Your task to perform on an android device: Set an alarm for 6pm Image 0: 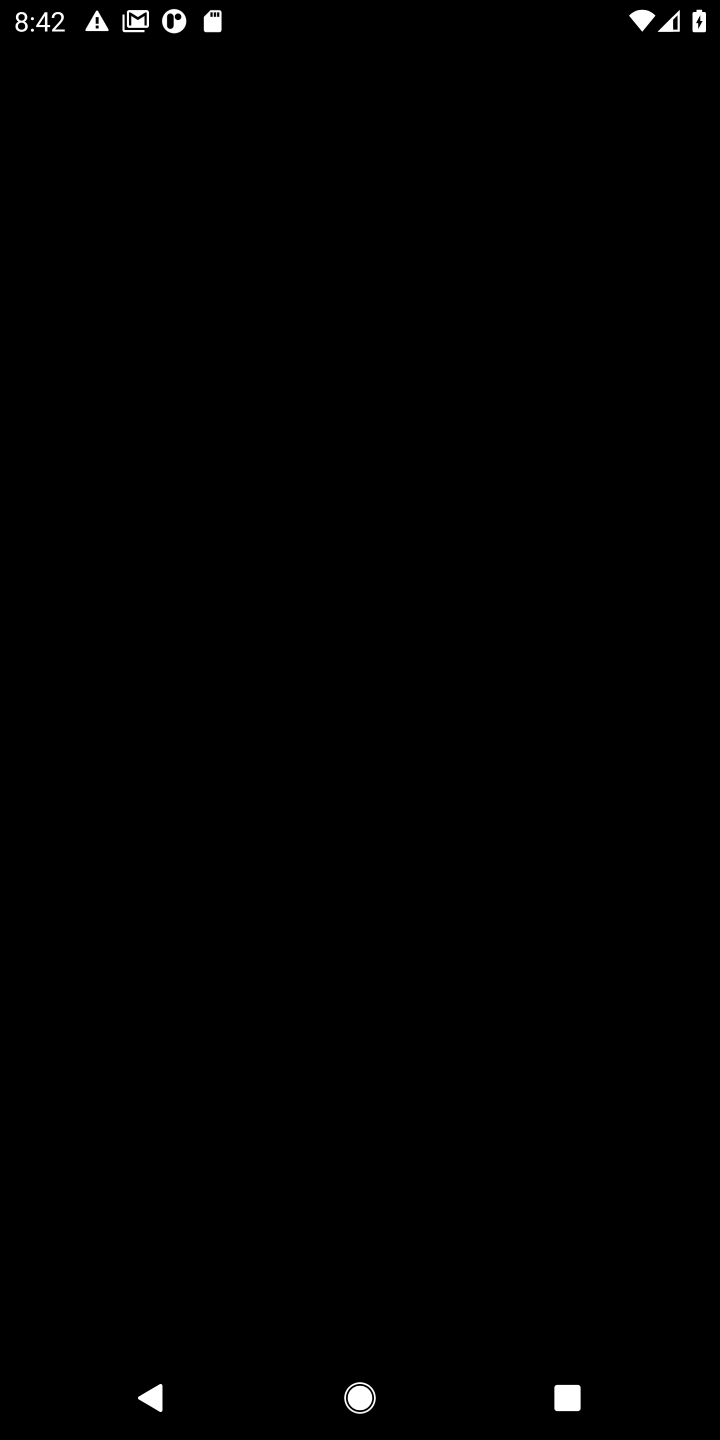
Step 0: press home button
Your task to perform on an android device: Set an alarm for 6pm Image 1: 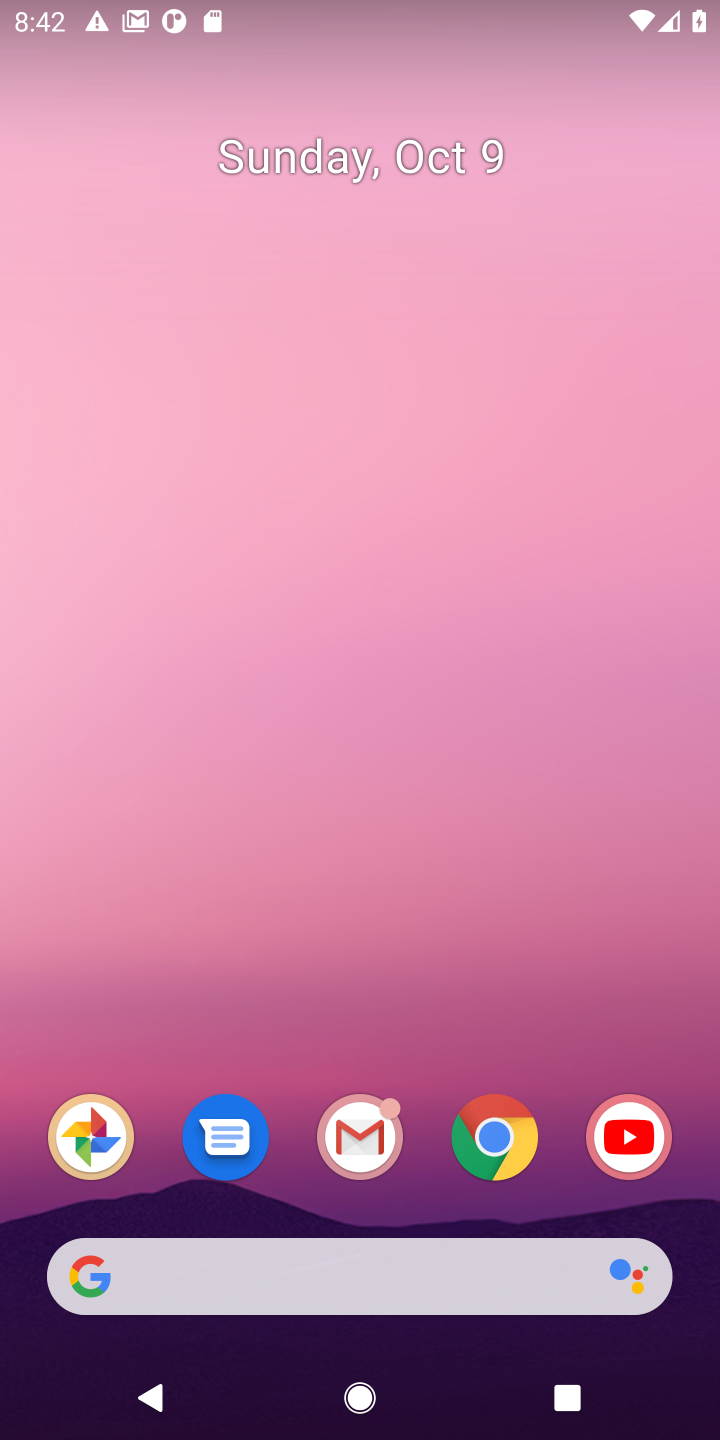
Step 1: click (489, 1145)
Your task to perform on an android device: Set an alarm for 6pm Image 2: 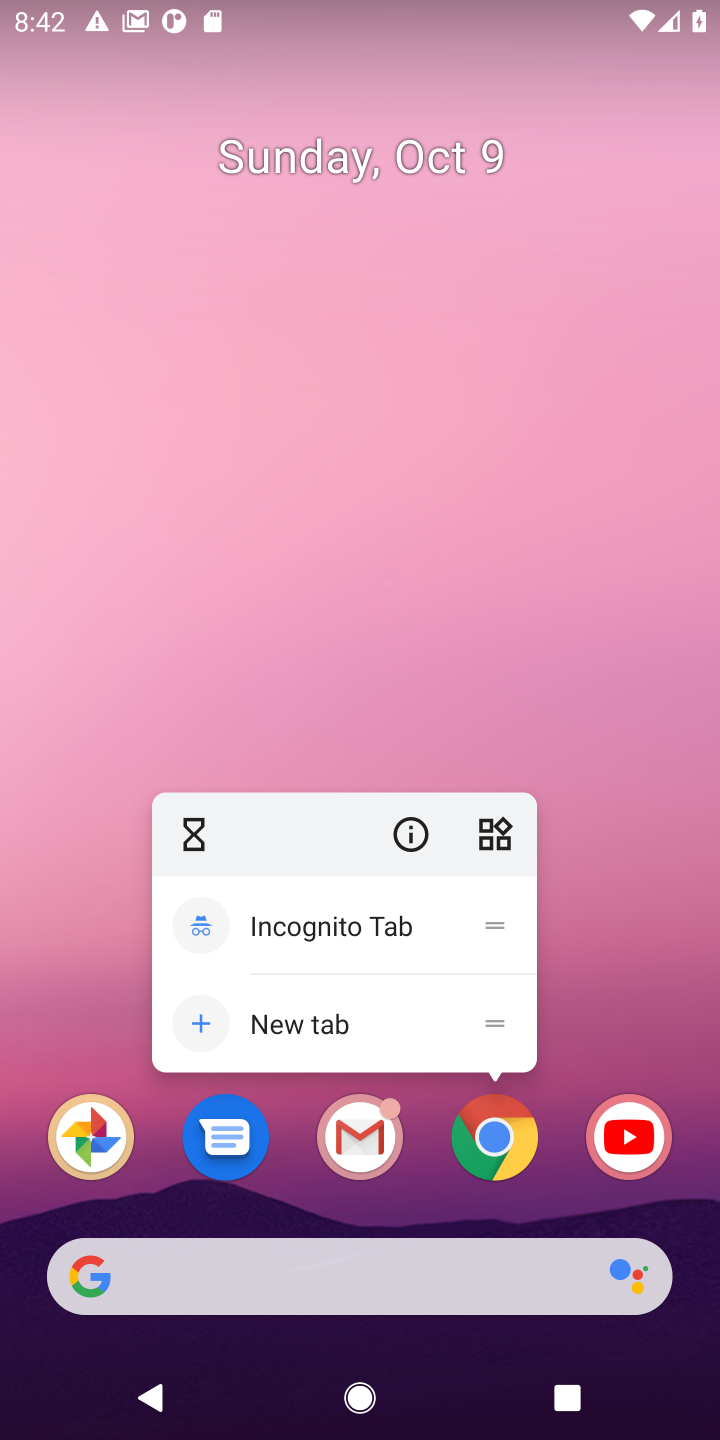
Step 2: click (480, 1145)
Your task to perform on an android device: Set an alarm for 6pm Image 3: 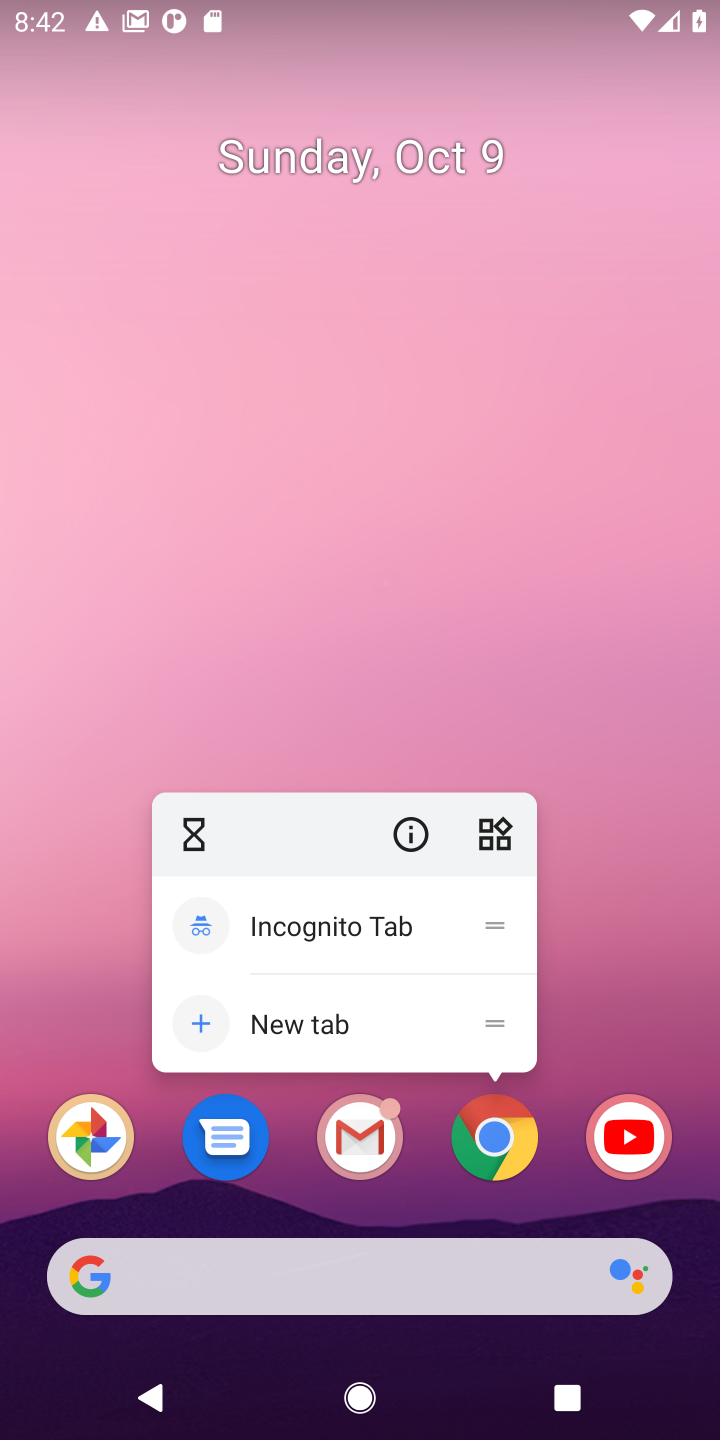
Step 3: click (480, 1145)
Your task to perform on an android device: Set an alarm for 6pm Image 4: 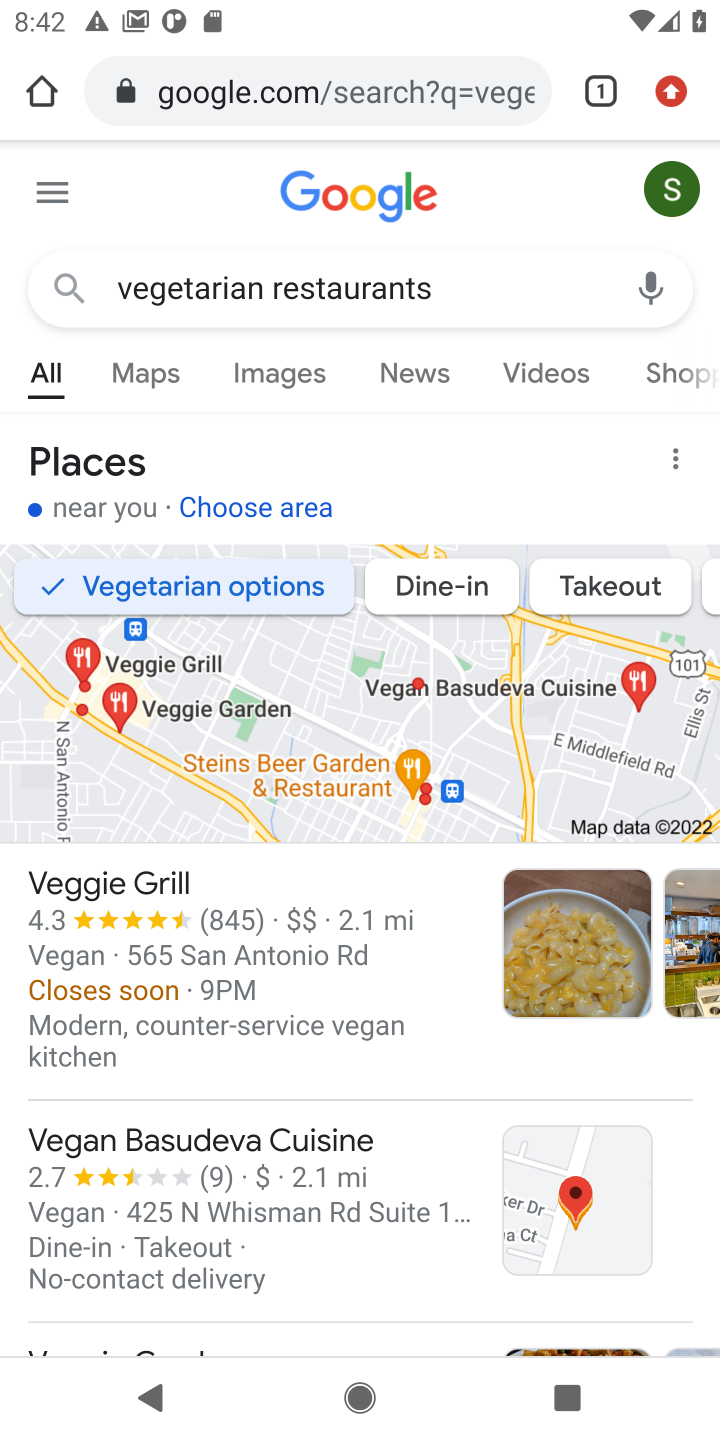
Step 4: click (389, 101)
Your task to perform on an android device: Set an alarm for 6pm Image 5: 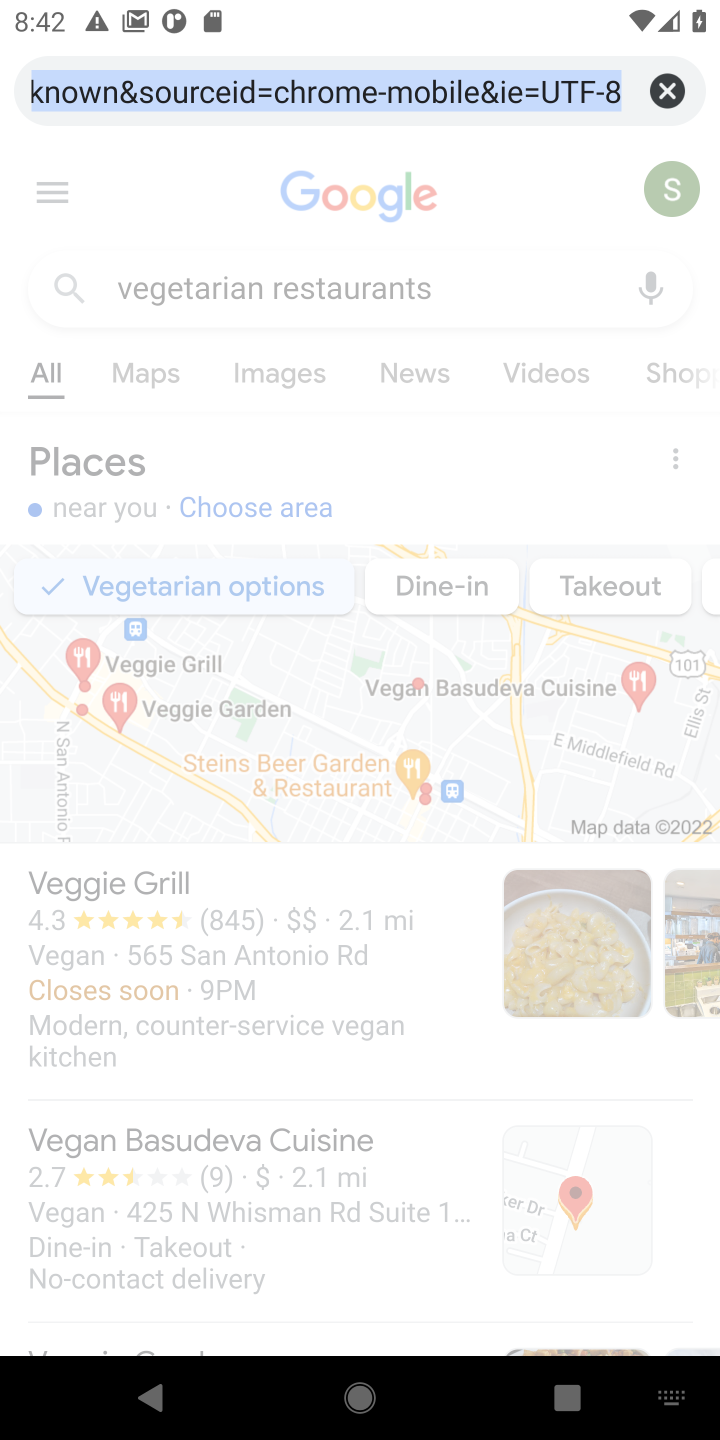
Step 5: press home button
Your task to perform on an android device: Set an alarm for 6pm Image 6: 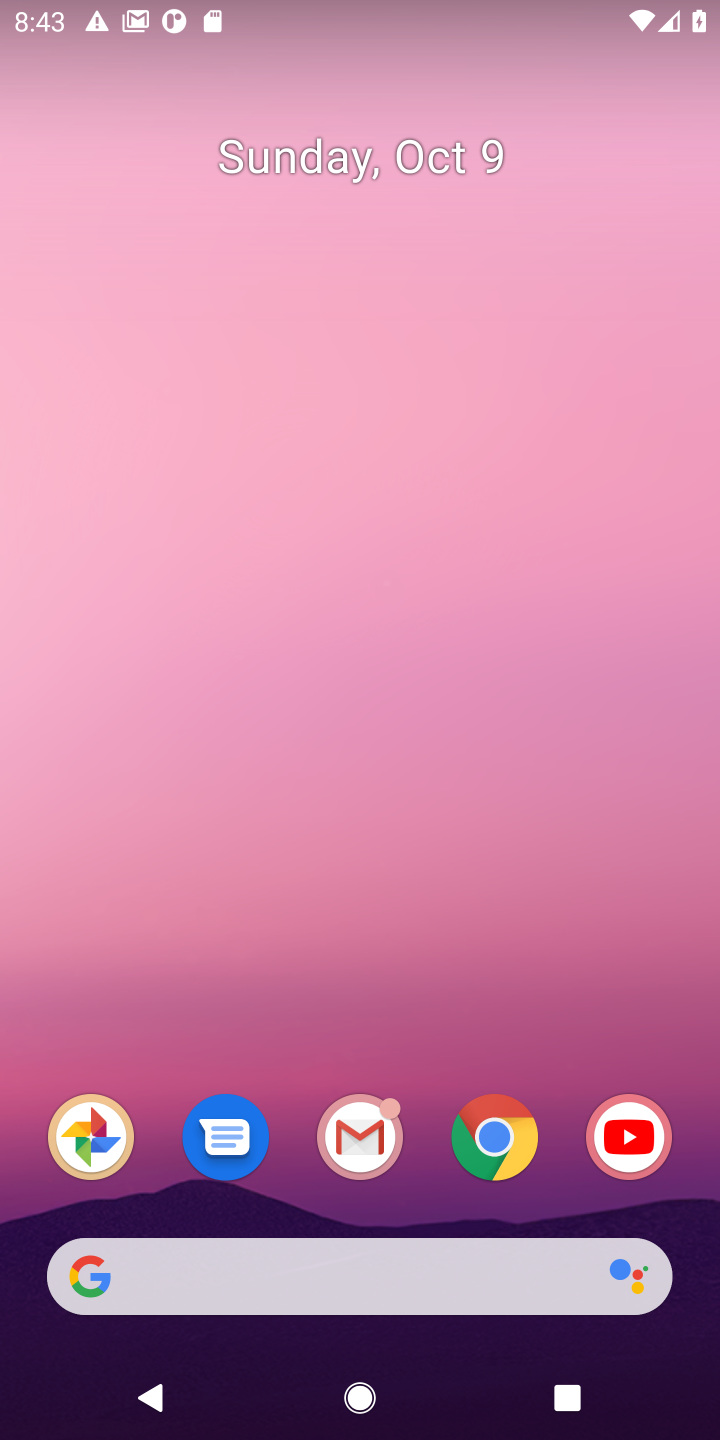
Step 6: drag from (428, 1071) to (518, 136)
Your task to perform on an android device: Set an alarm for 6pm Image 7: 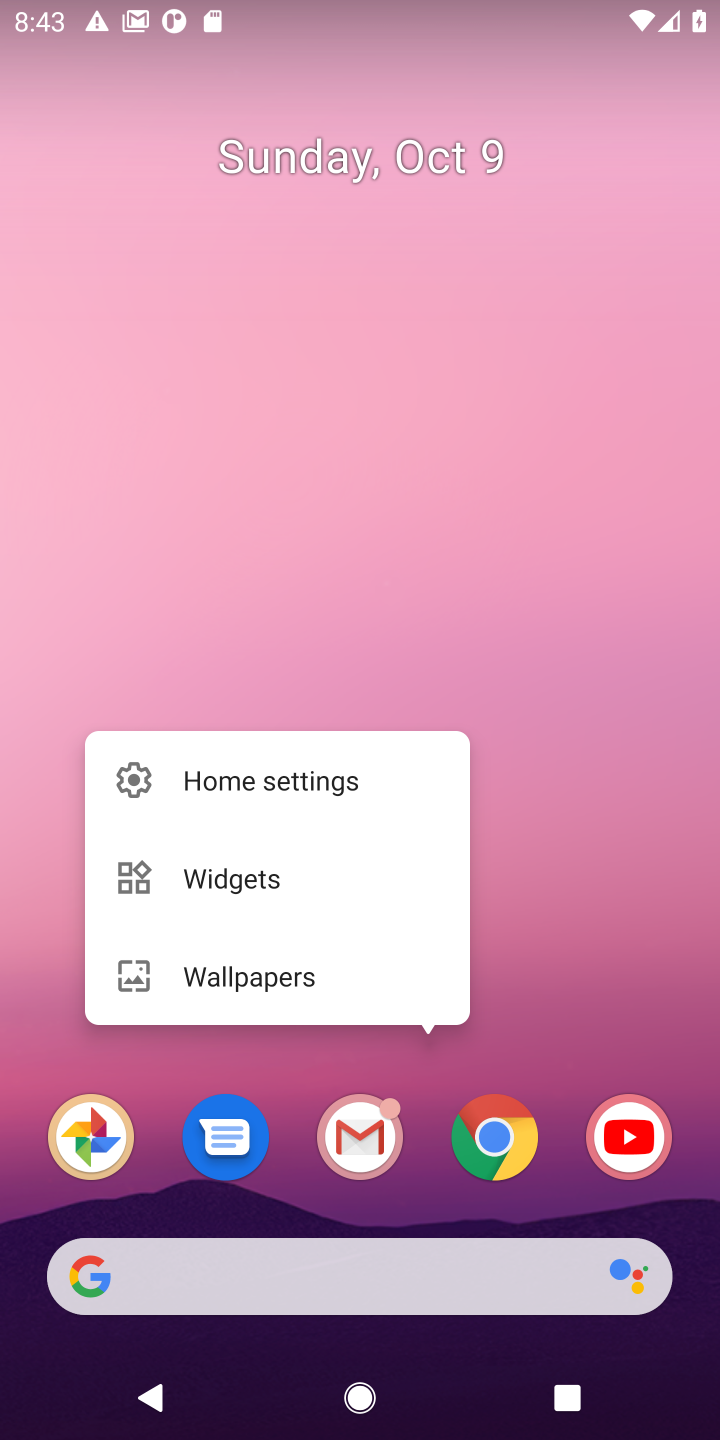
Step 7: click (460, 1012)
Your task to perform on an android device: Set an alarm for 6pm Image 8: 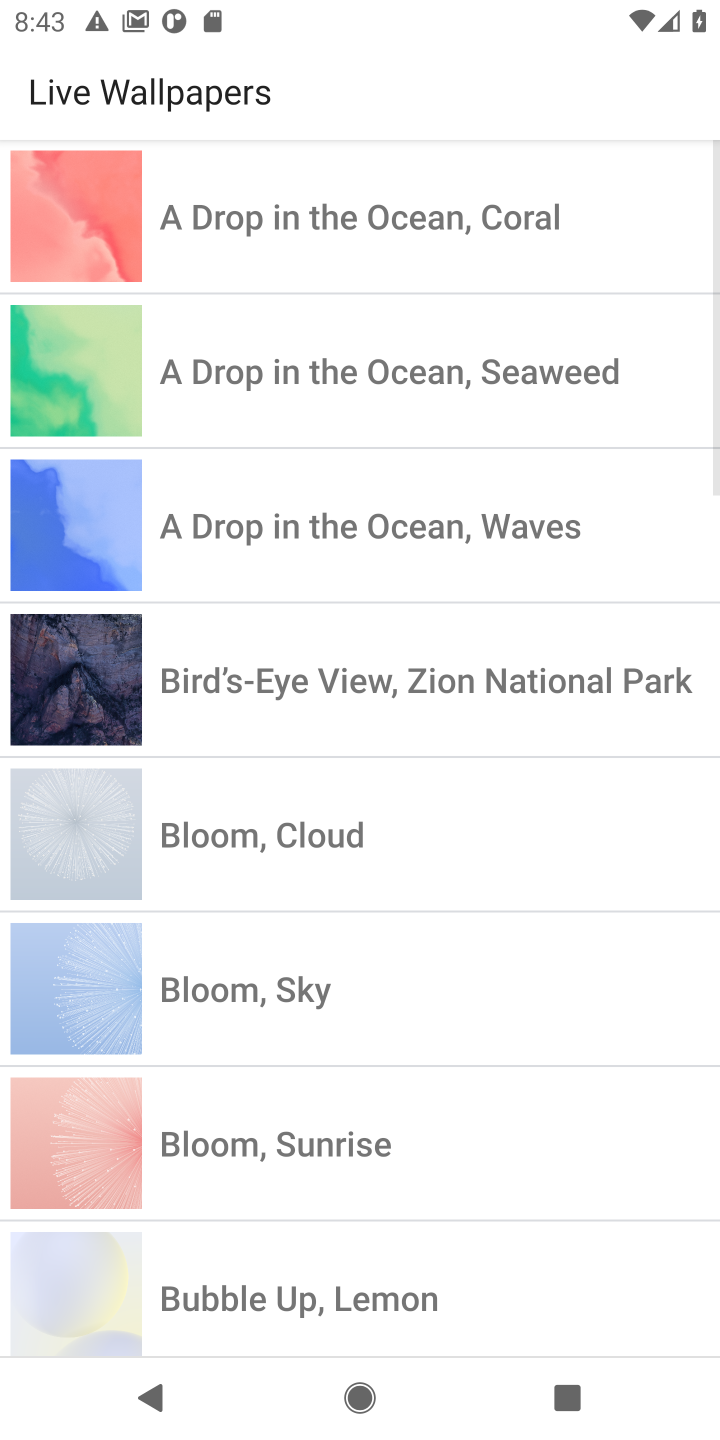
Step 8: press home button
Your task to perform on an android device: Set an alarm for 6pm Image 9: 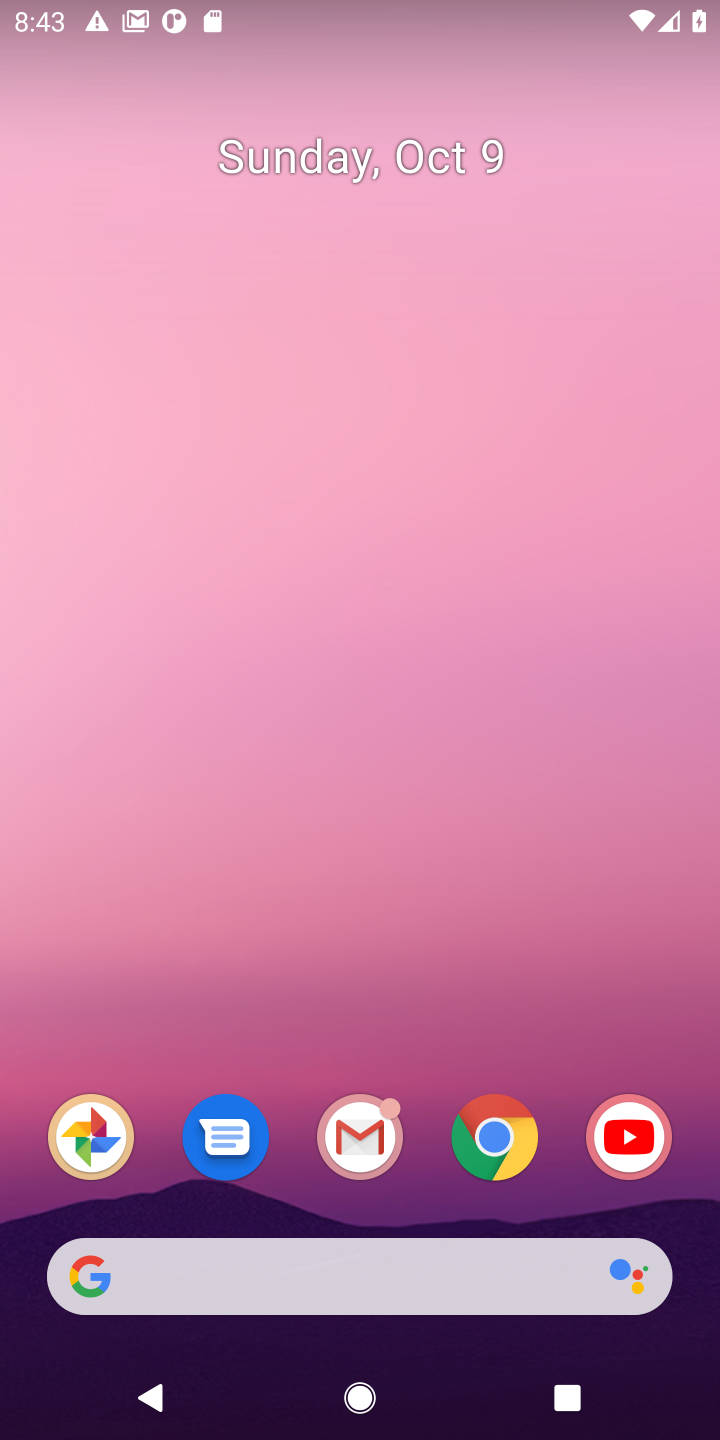
Step 9: drag from (434, 1063) to (497, 93)
Your task to perform on an android device: Set an alarm for 6pm Image 10: 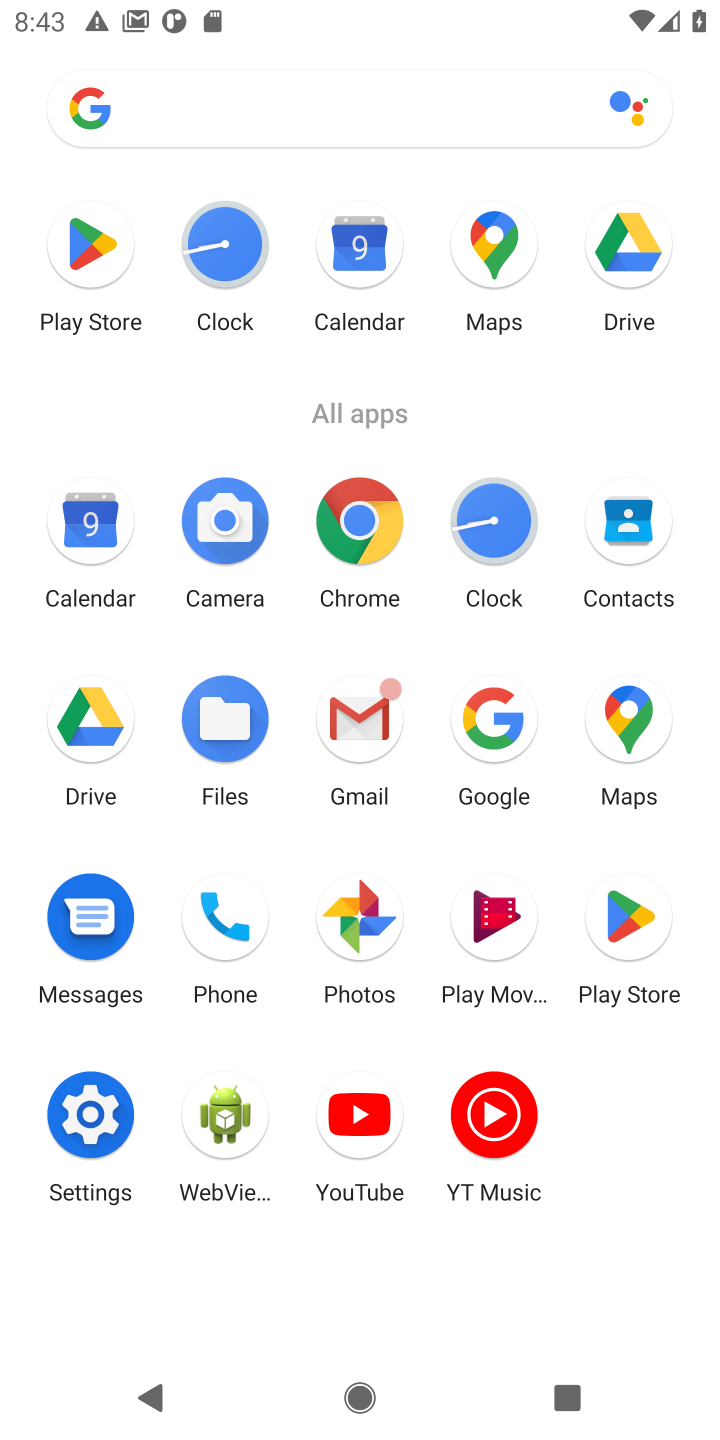
Step 10: click (491, 524)
Your task to perform on an android device: Set an alarm for 6pm Image 11: 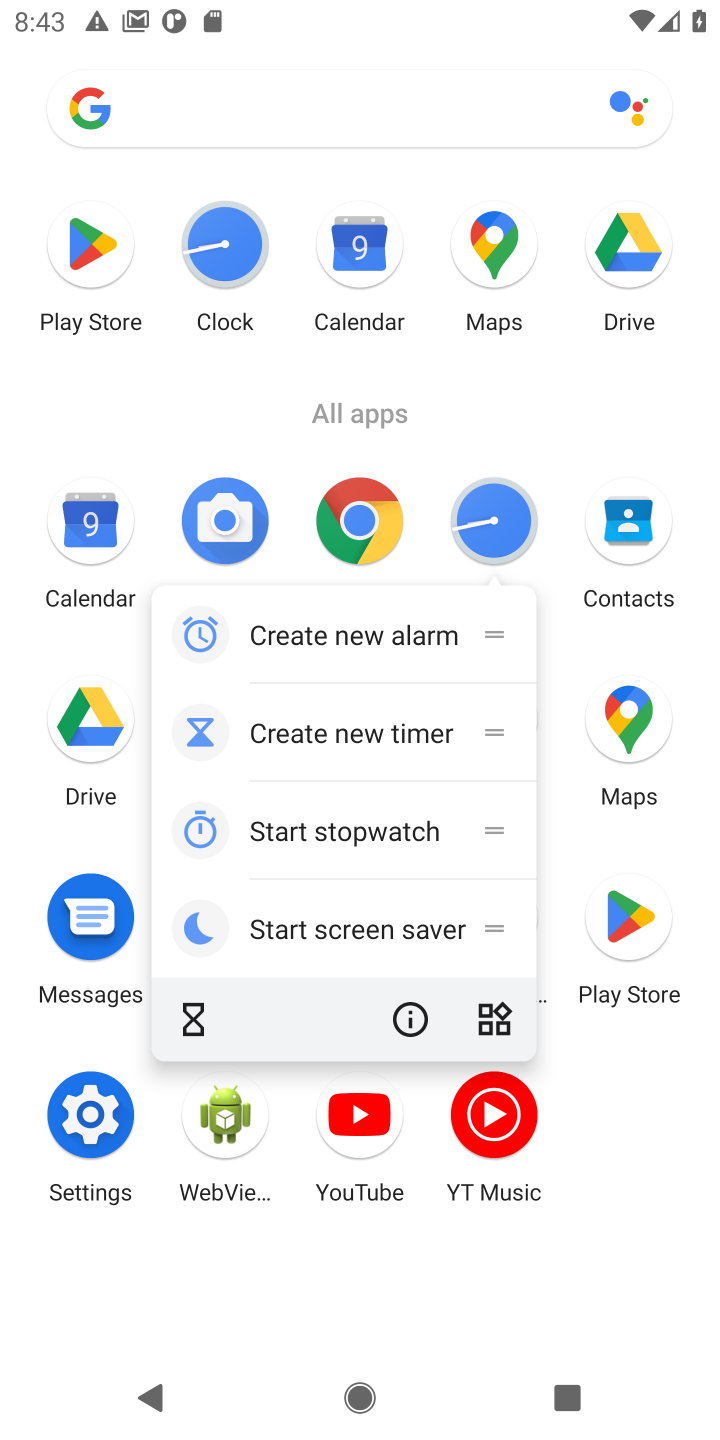
Step 11: click (519, 499)
Your task to perform on an android device: Set an alarm for 6pm Image 12: 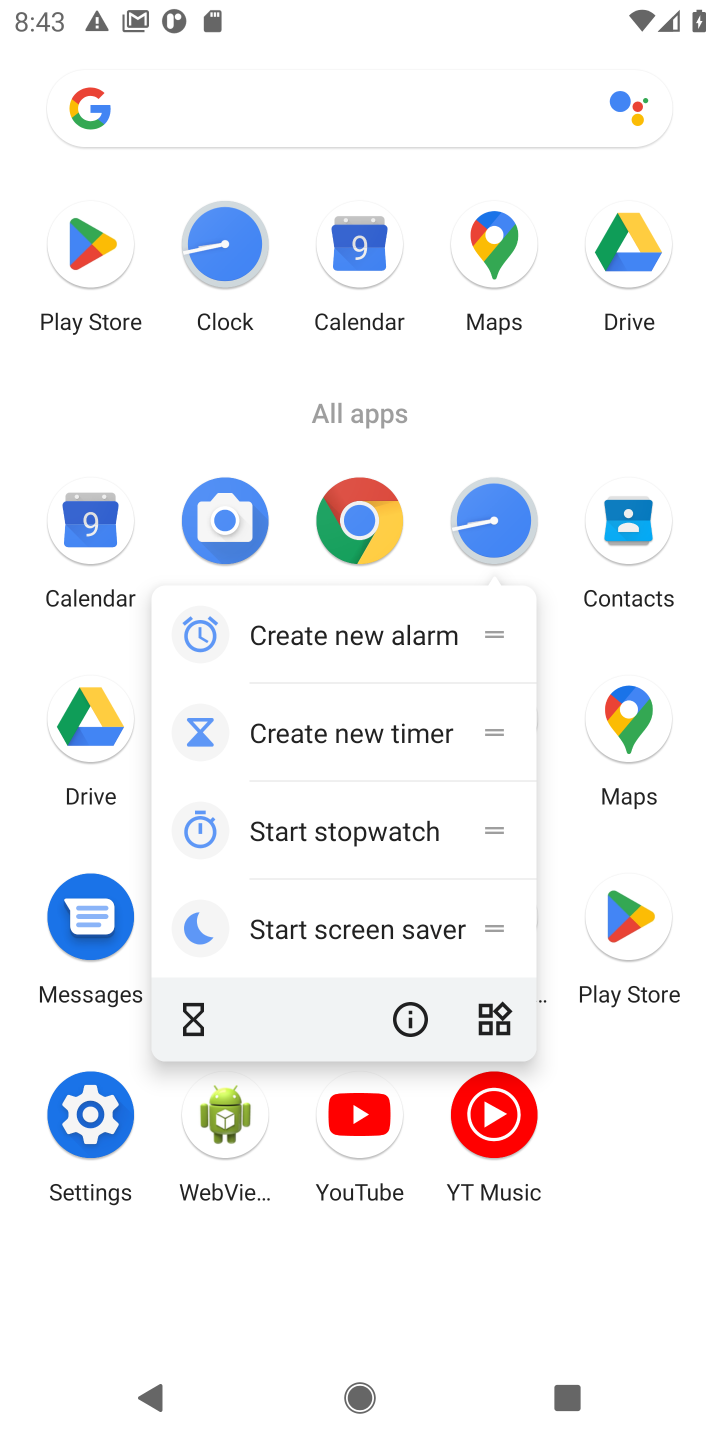
Step 12: click (500, 498)
Your task to perform on an android device: Set an alarm for 6pm Image 13: 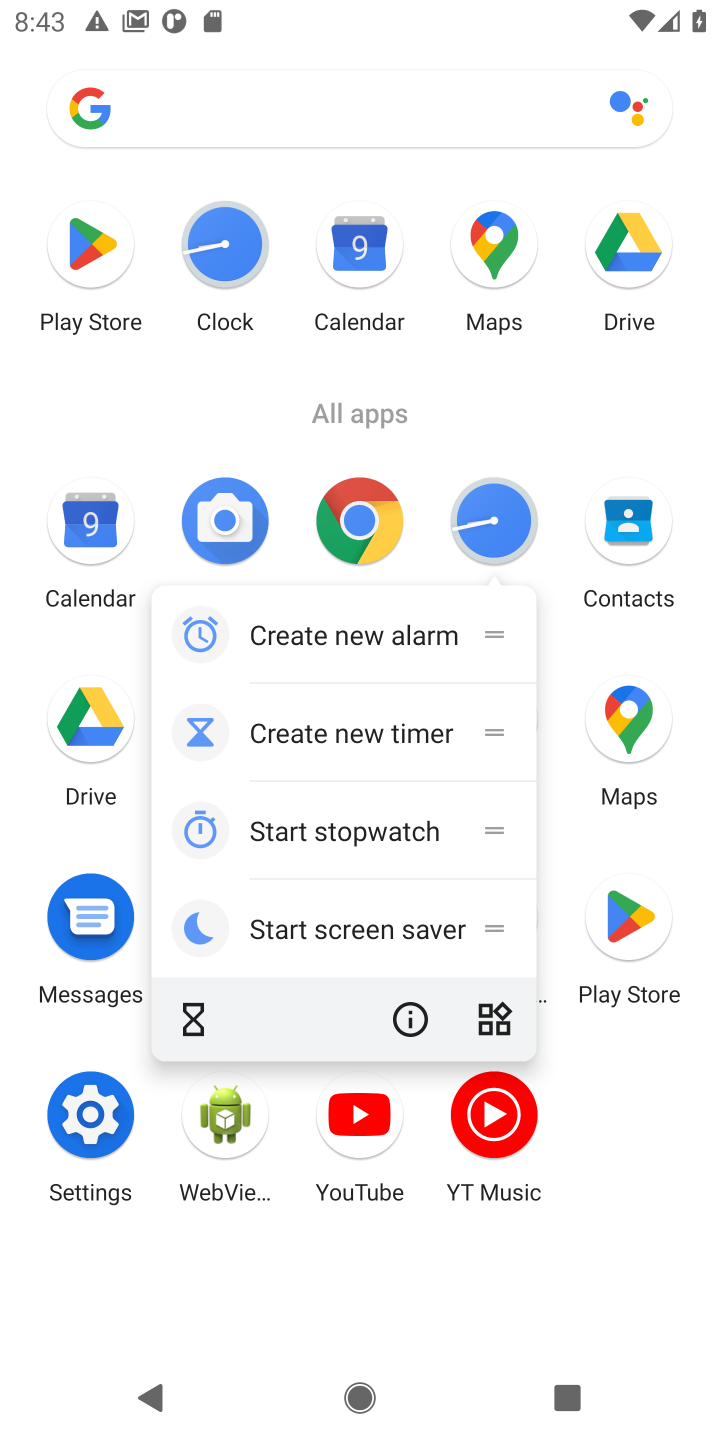
Step 13: click (493, 516)
Your task to perform on an android device: Set an alarm for 6pm Image 14: 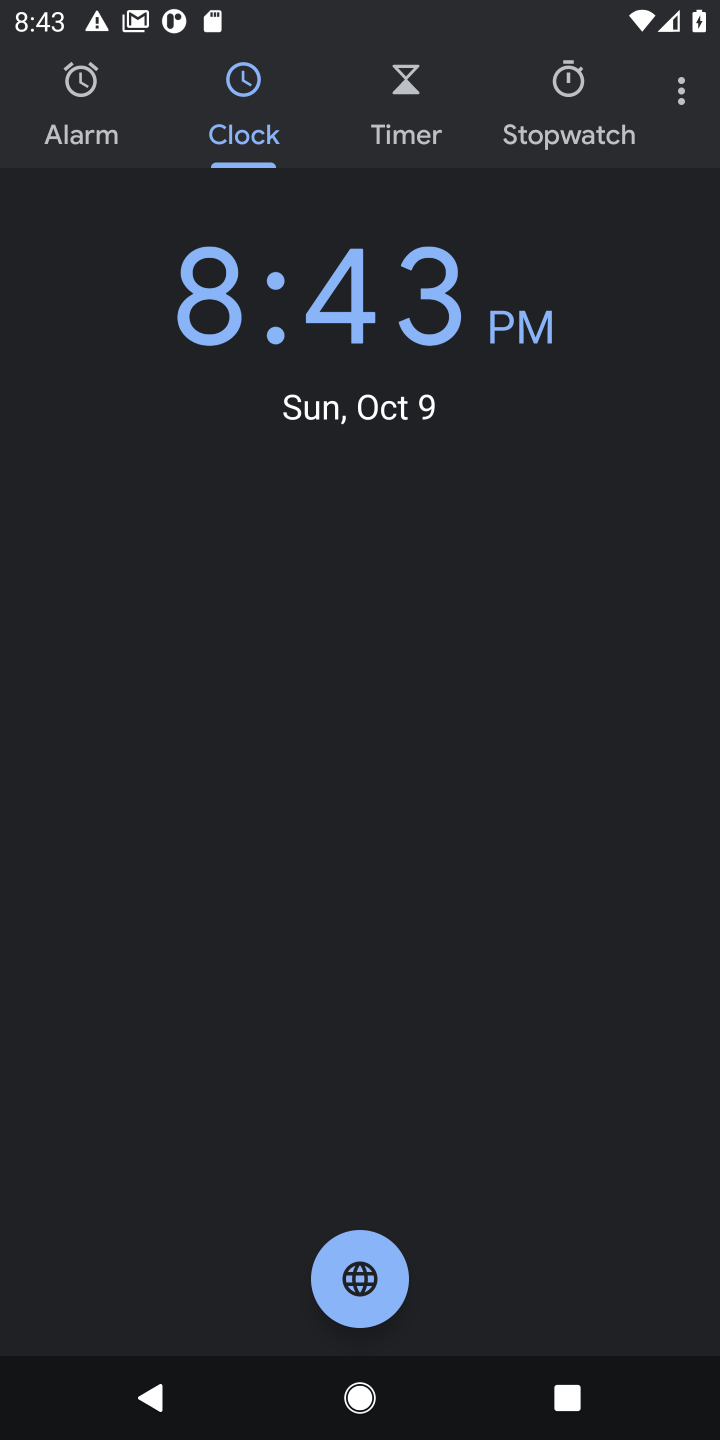
Step 14: click (77, 131)
Your task to perform on an android device: Set an alarm for 6pm Image 15: 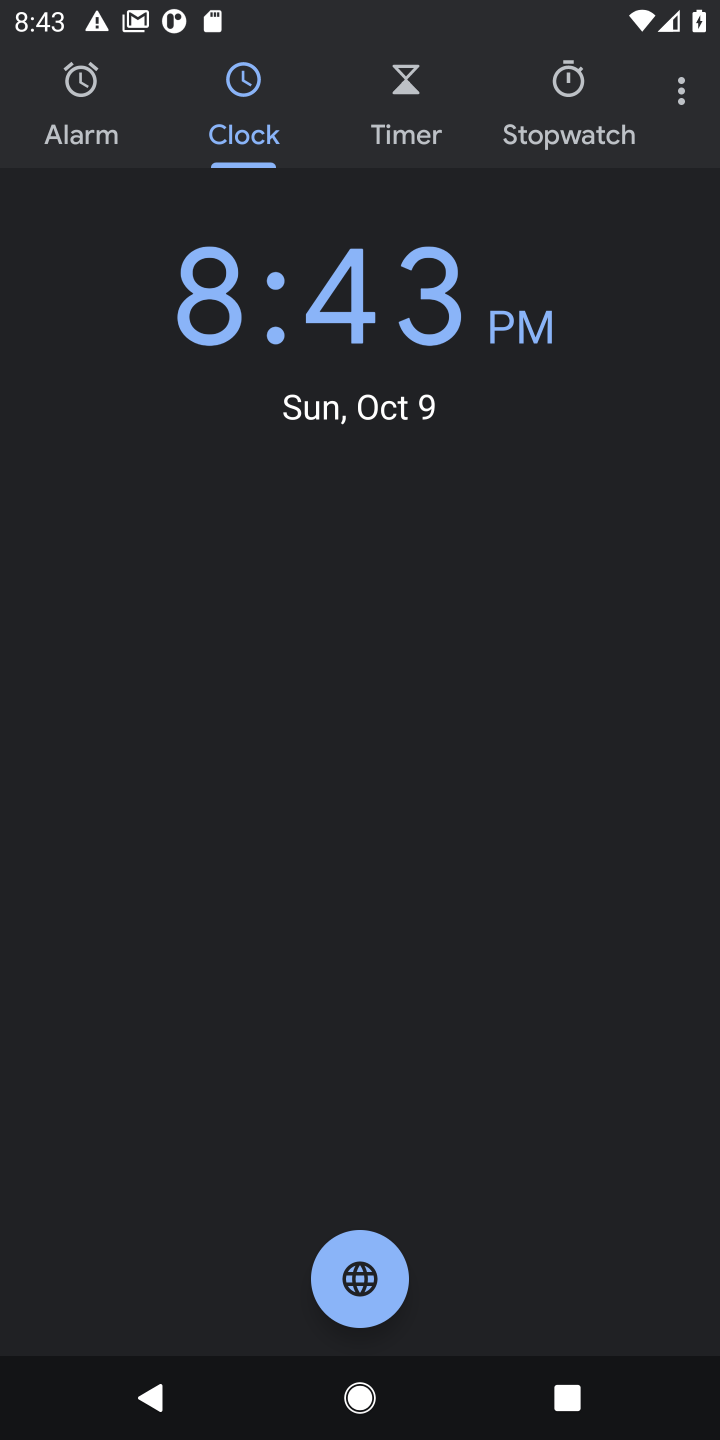
Step 15: click (77, 131)
Your task to perform on an android device: Set an alarm for 6pm Image 16: 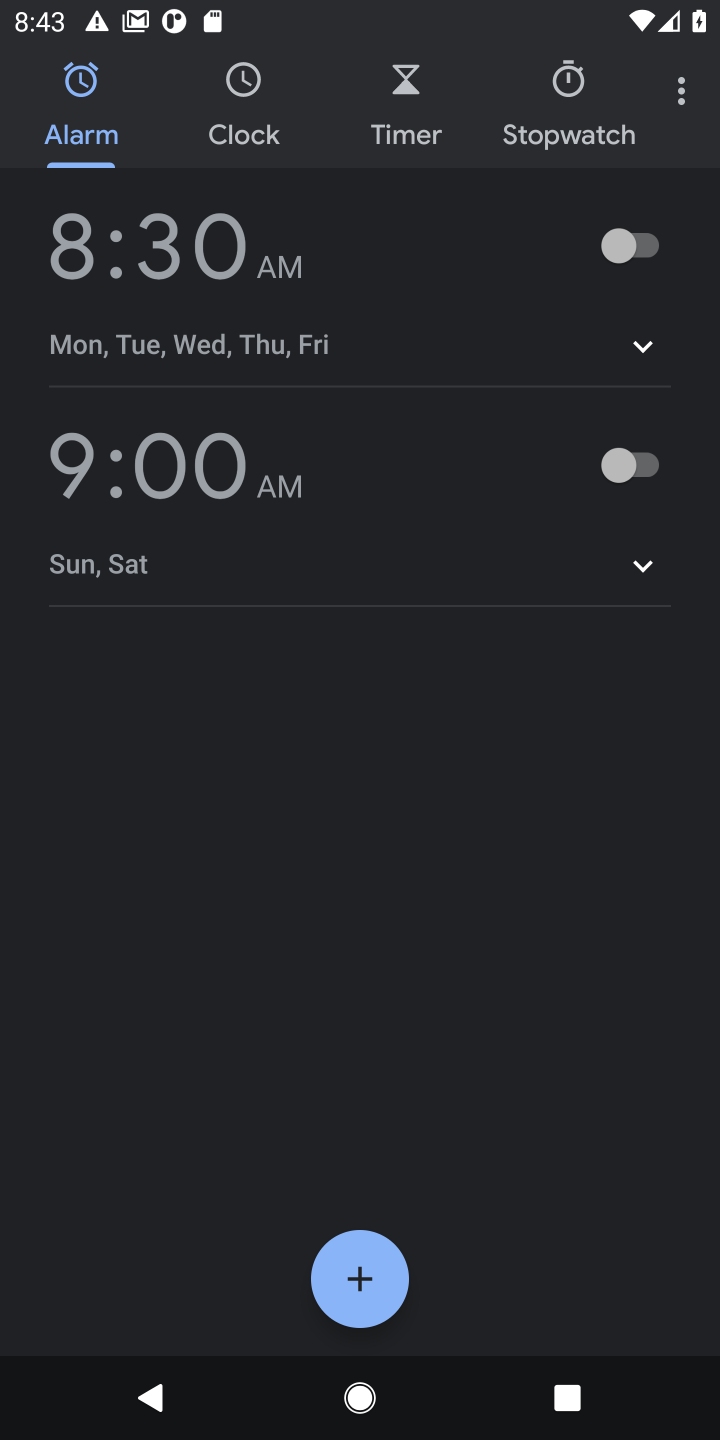
Step 16: click (349, 1242)
Your task to perform on an android device: Set an alarm for 6pm Image 17: 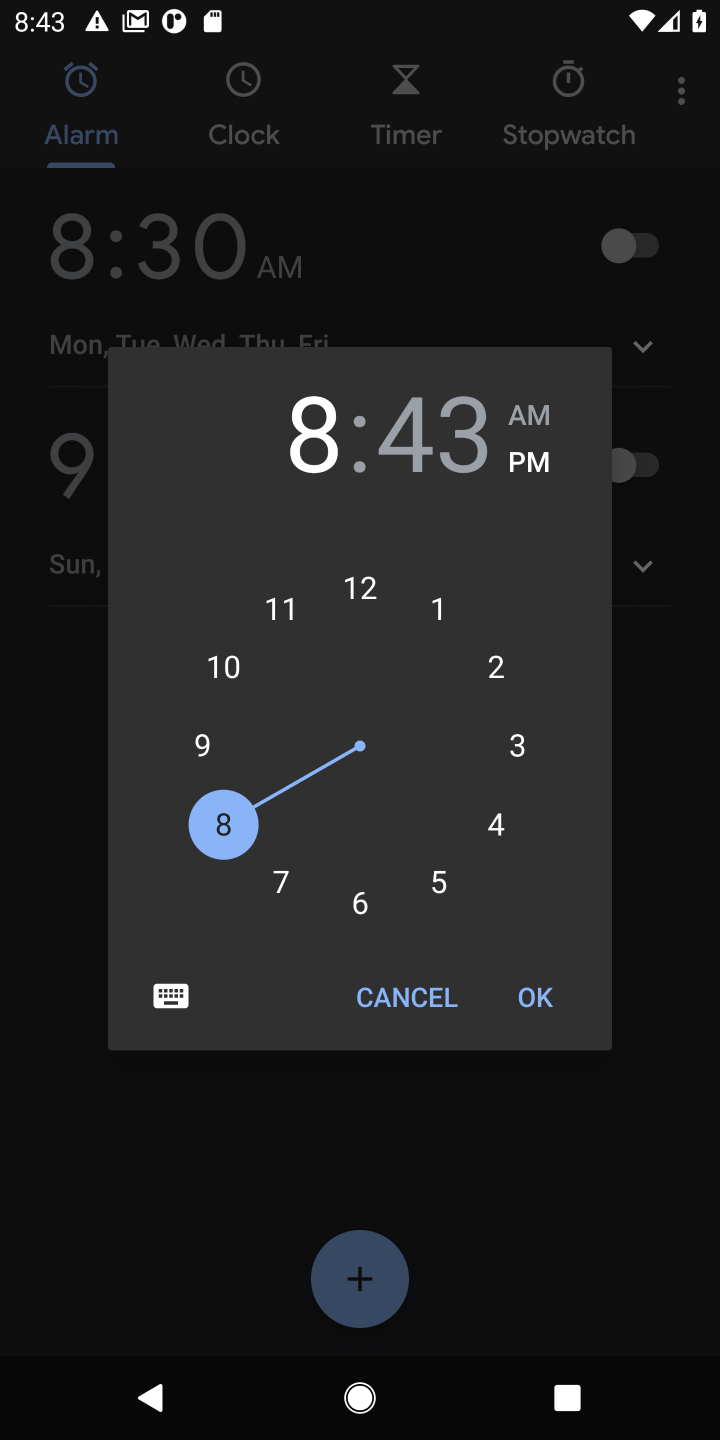
Step 17: click (365, 888)
Your task to perform on an android device: Set an alarm for 6pm Image 18: 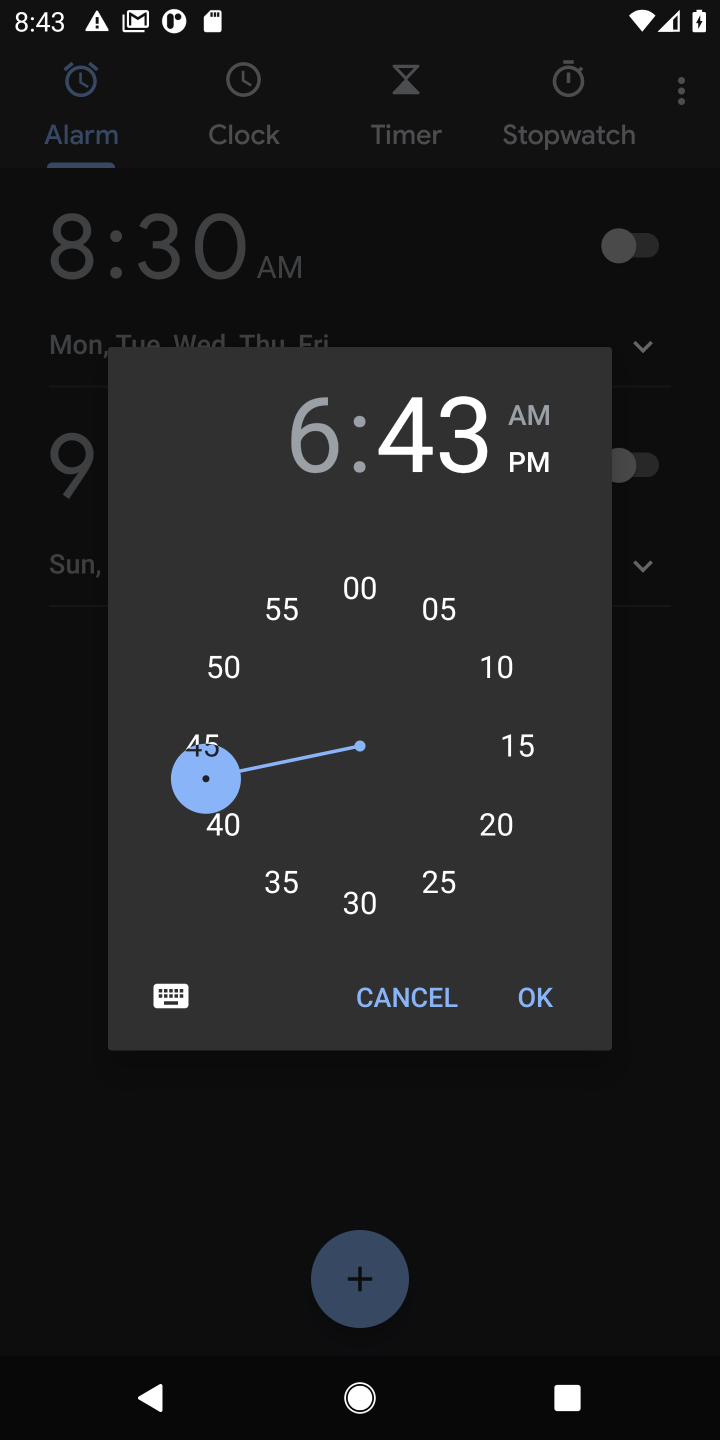
Step 18: click (371, 583)
Your task to perform on an android device: Set an alarm for 6pm Image 19: 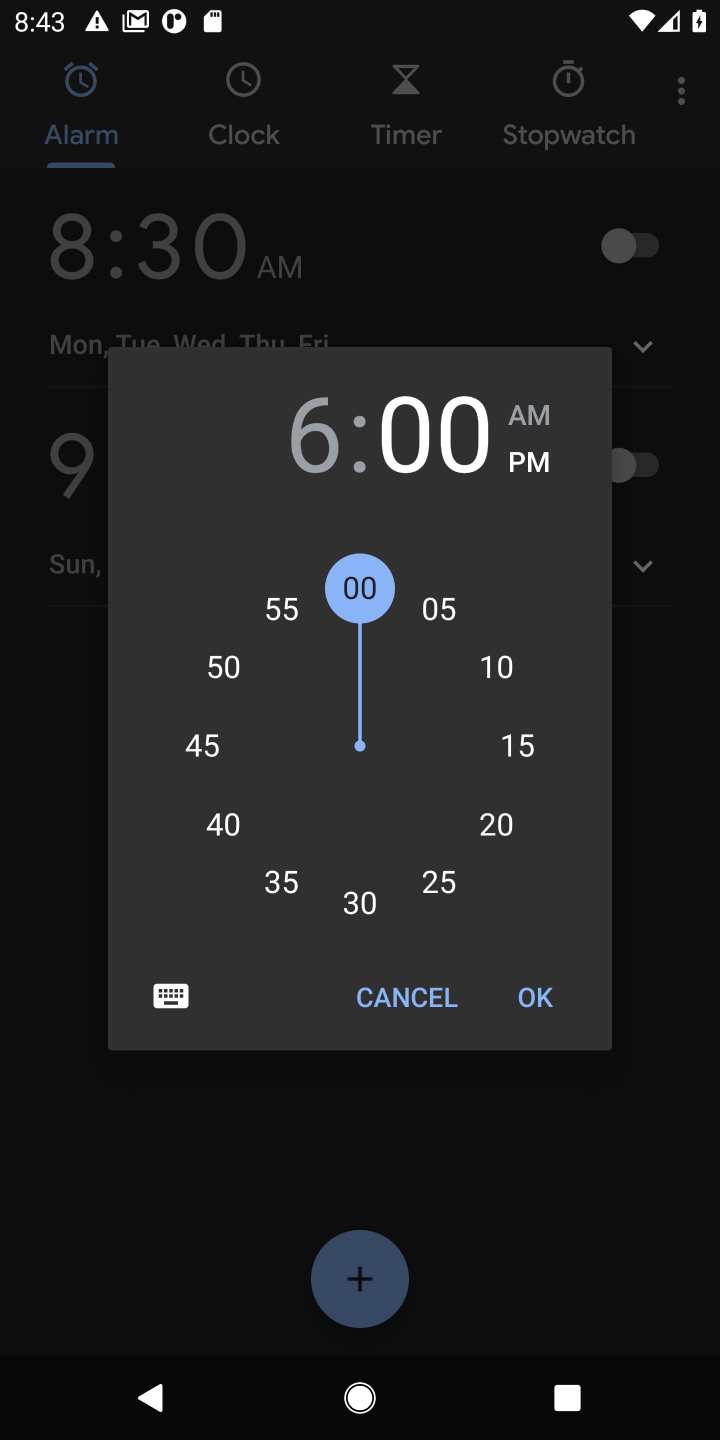
Step 19: click (525, 458)
Your task to perform on an android device: Set an alarm for 6pm Image 20: 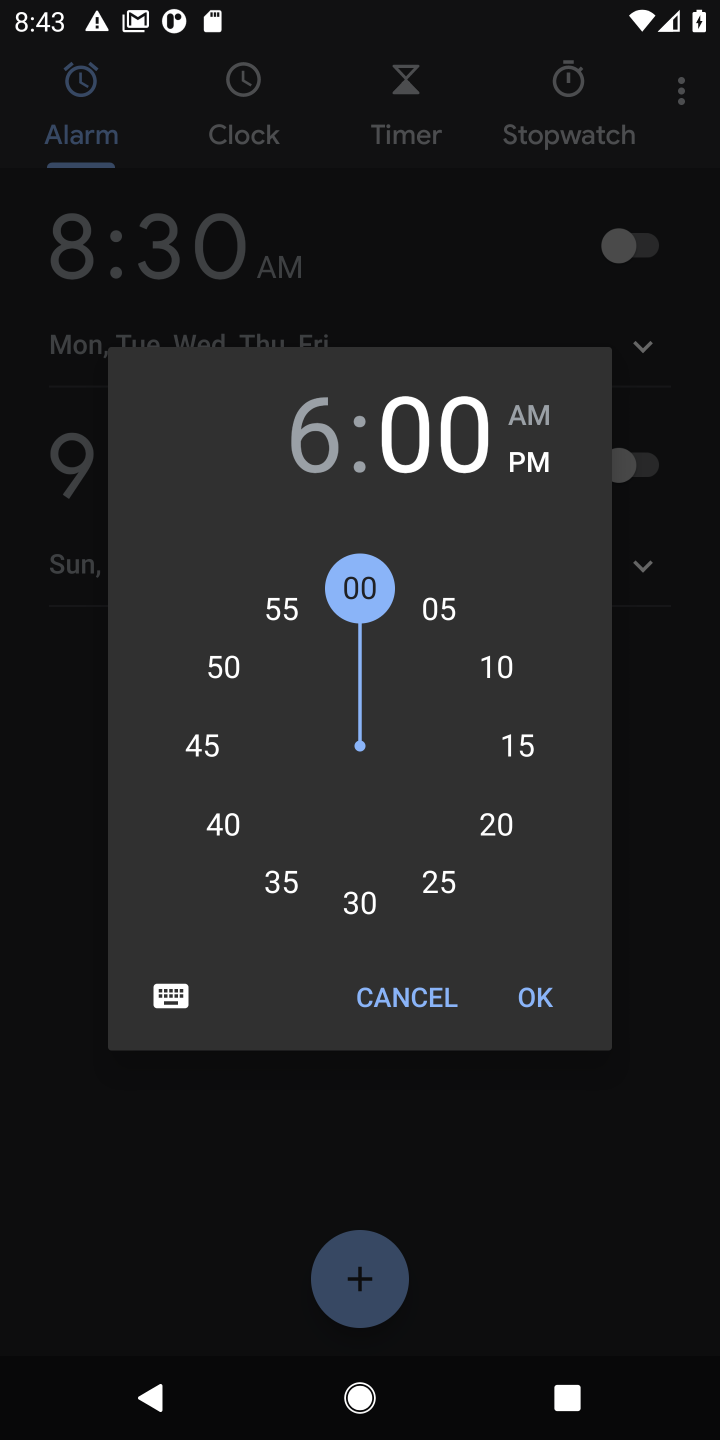
Step 20: click (529, 985)
Your task to perform on an android device: Set an alarm for 6pm Image 21: 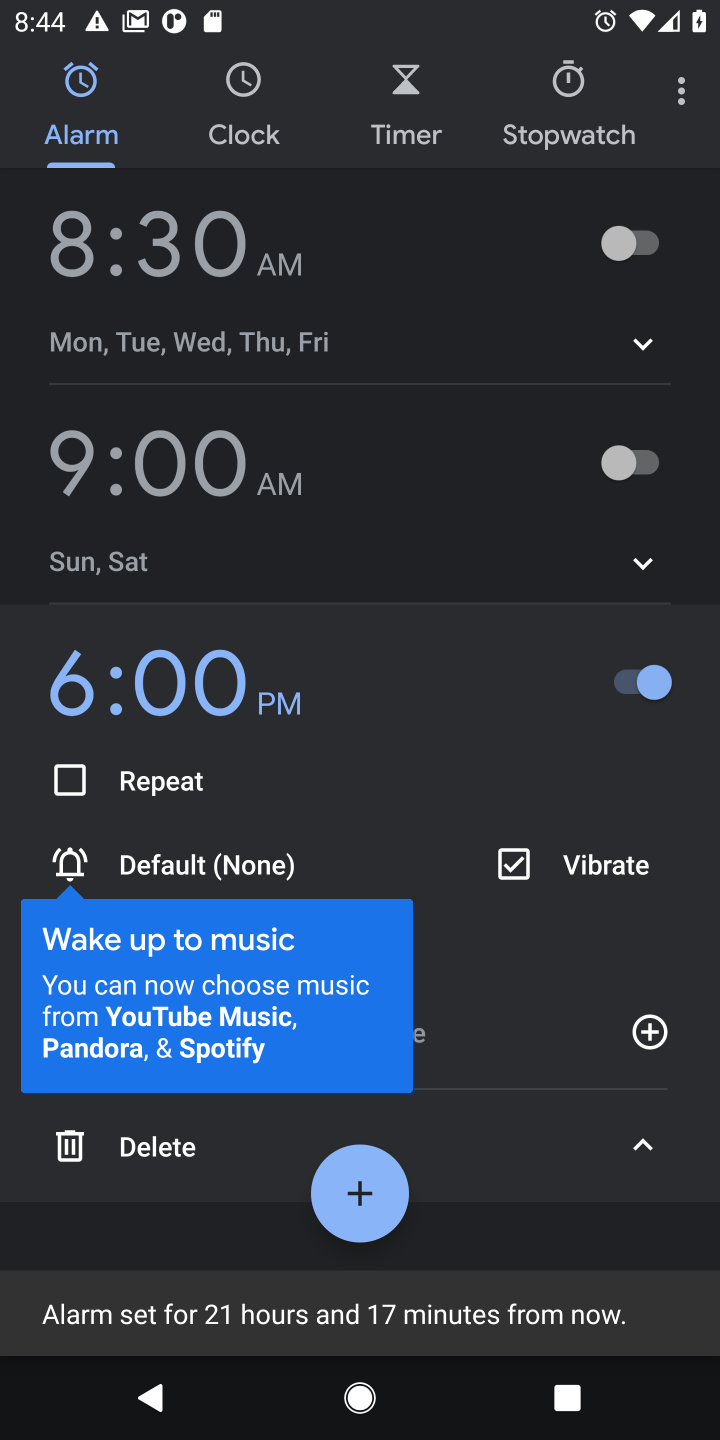
Step 21: task complete